Your task to perform on an android device: Open the Play Movies app and select the watchlist tab. Image 0: 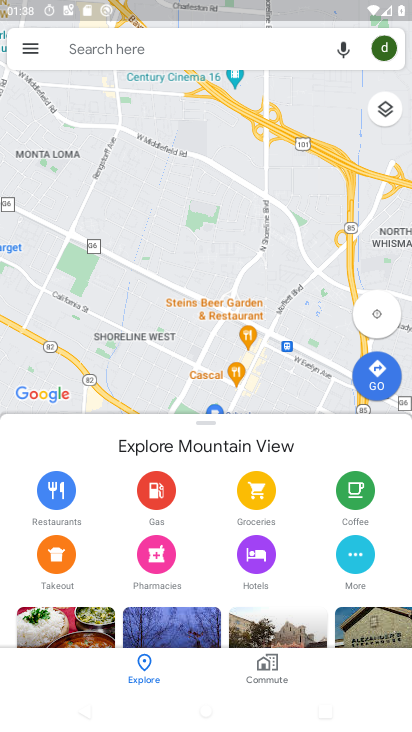
Step 0: press home button
Your task to perform on an android device: Open the Play Movies app and select the watchlist tab. Image 1: 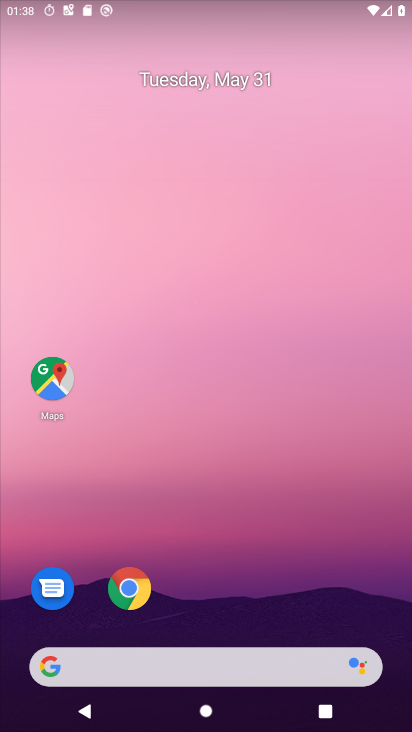
Step 1: drag from (299, 620) to (391, 683)
Your task to perform on an android device: Open the Play Movies app and select the watchlist tab. Image 2: 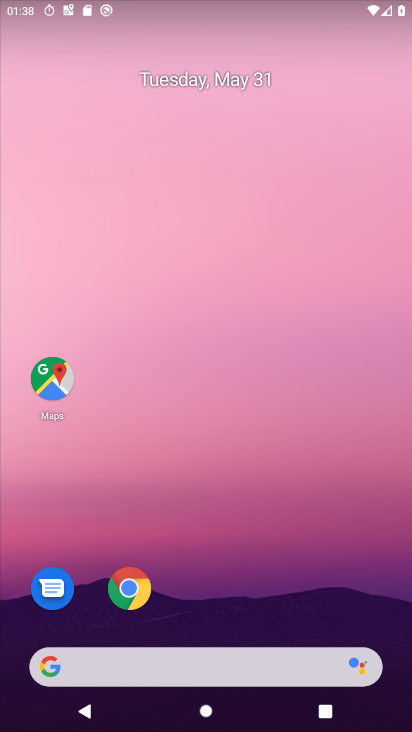
Step 2: drag from (231, 673) to (395, 12)
Your task to perform on an android device: Open the Play Movies app and select the watchlist tab. Image 3: 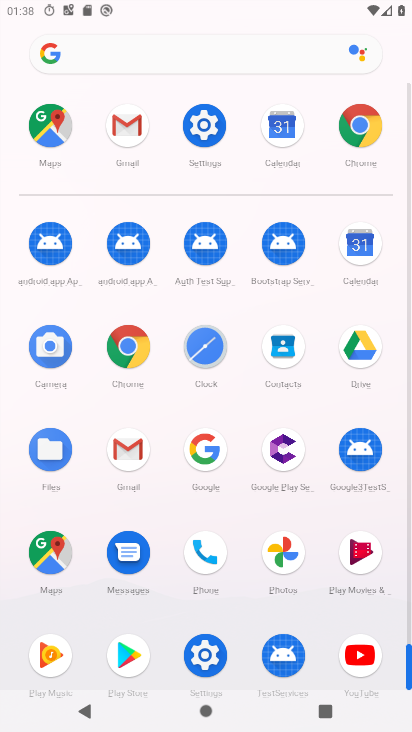
Step 3: click (125, 655)
Your task to perform on an android device: Open the Play Movies app and select the watchlist tab. Image 4: 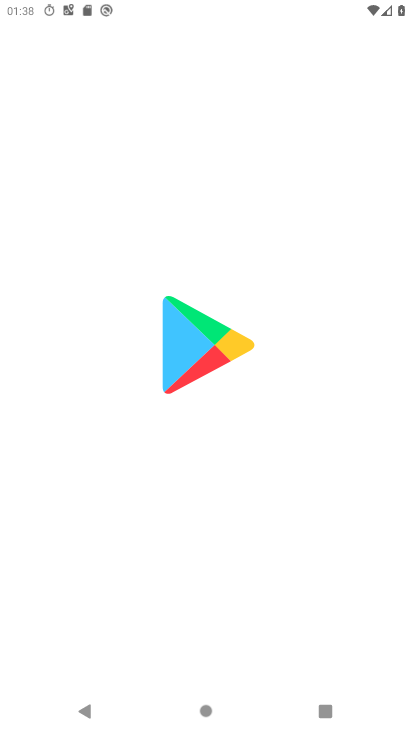
Step 4: press back button
Your task to perform on an android device: Open the Play Movies app and select the watchlist tab. Image 5: 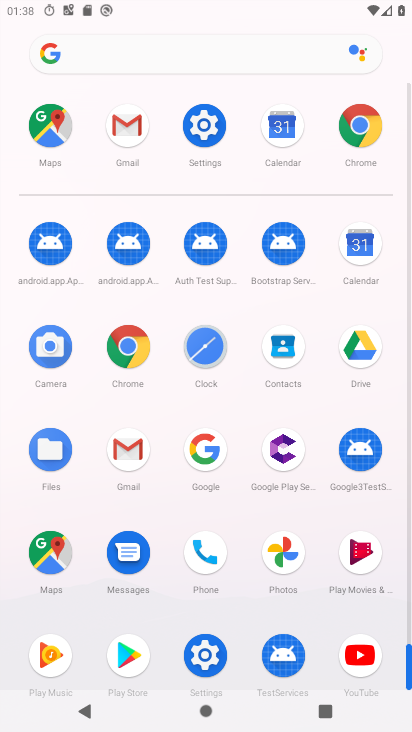
Step 5: click (367, 550)
Your task to perform on an android device: Open the Play Movies app and select the watchlist tab. Image 6: 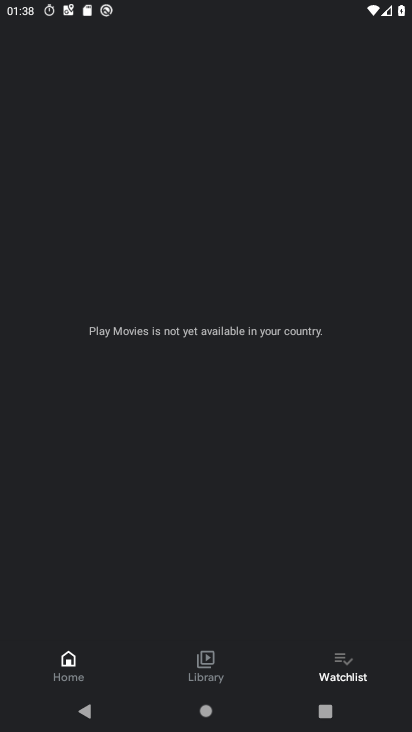
Step 6: task complete